Your task to perform on an android device: move a message to another label in the gmail app Image 0: 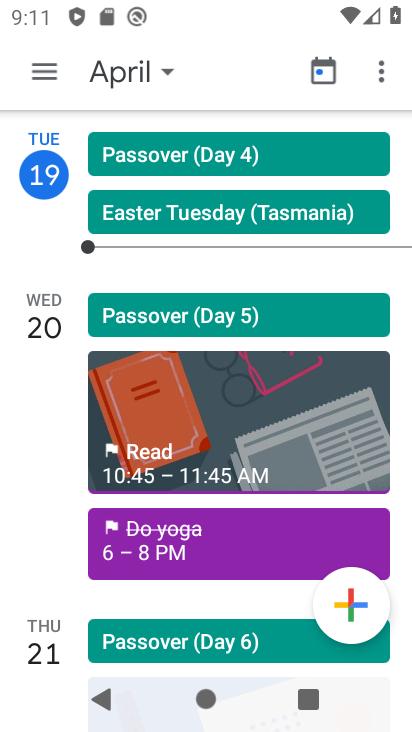
Step 0: press home button
Your task to perform on an android device: move a message to another label in the gmail app Image 1: 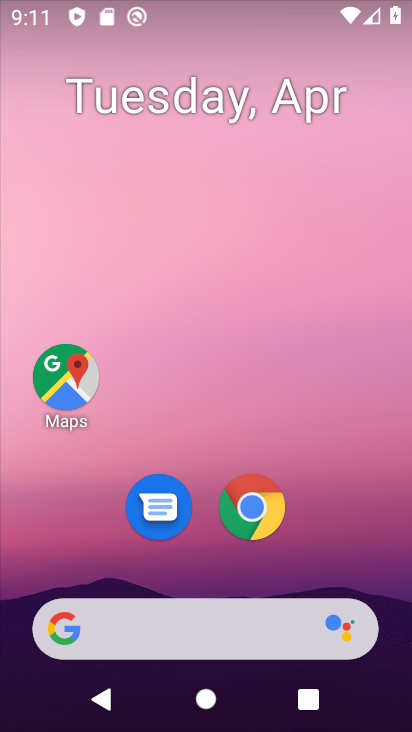
Step 1: drag from (324, 537) to (289, 150)
Your task to perform on an android device: move a message to another label in the gmail app Image 2: 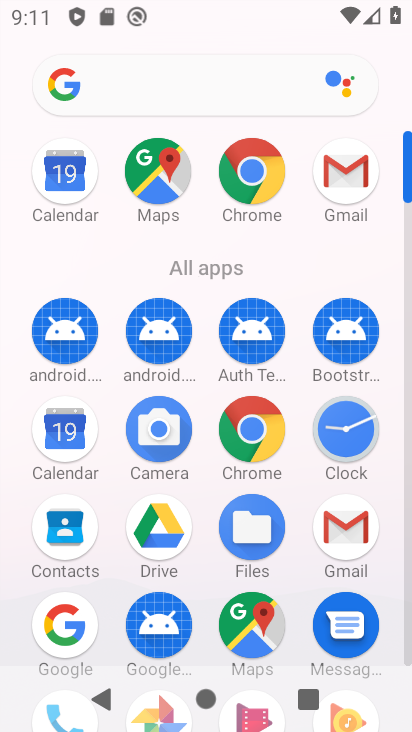
Step 2: click (351, 523)
Your task to perform on an android device: move a message to another label in the gmail app Image 3: 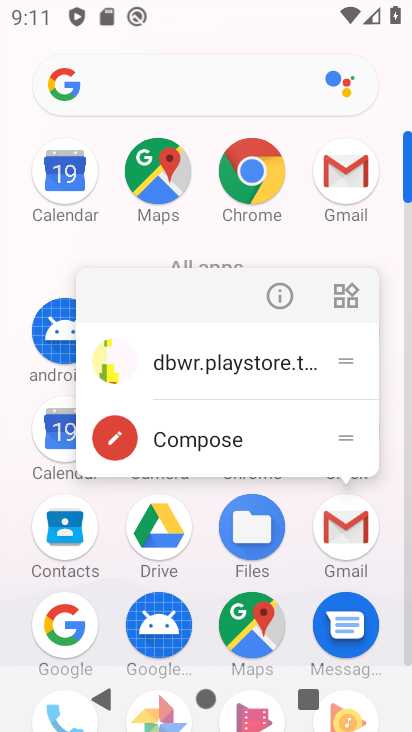
Step 3: click (351, 523)
Your task to perform on an android device: move a message to another label in the gmail app Image 4: 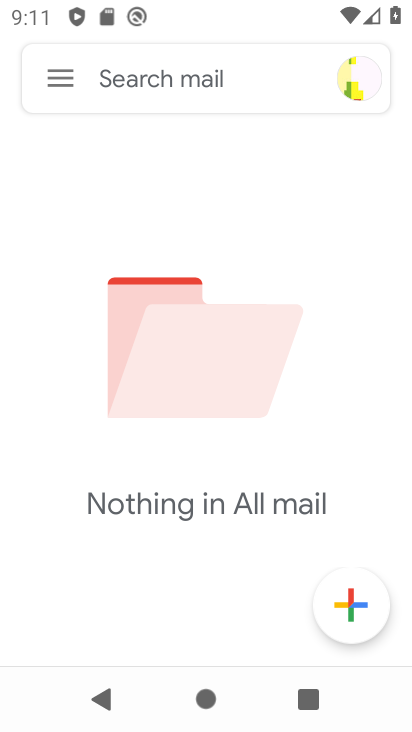
Step 4: task complete